Your task to perform on an android device: turn off location history Image 0: 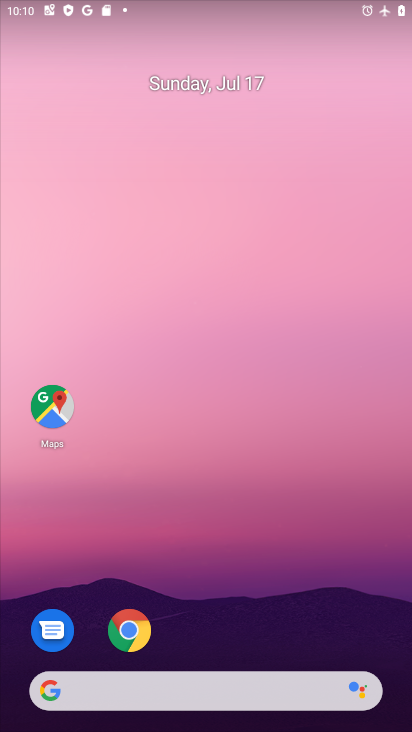
Step 0: press home button
Your task to perform on an android device: turn off location history Image 1: 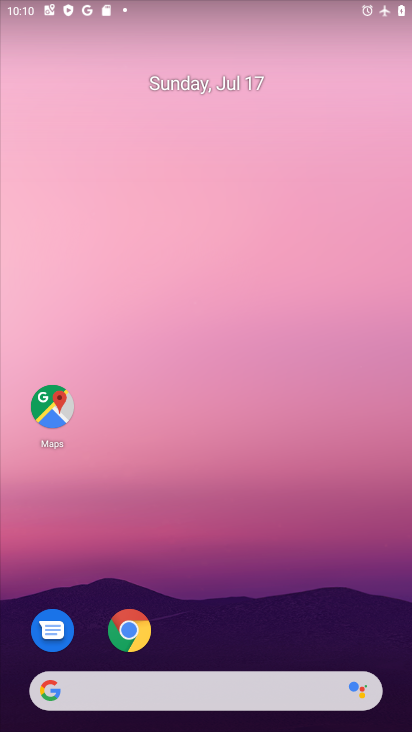
Step 1: drag from (221, 641) to (218, 54)
Your task to perform on an android device: turn off location history Image 2: 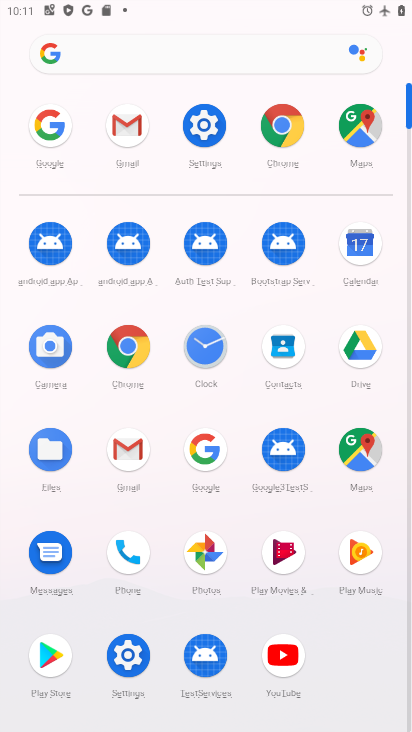
Step 2: click (201, 121)
Your task to perform on an android device: turn off location history Image 3: 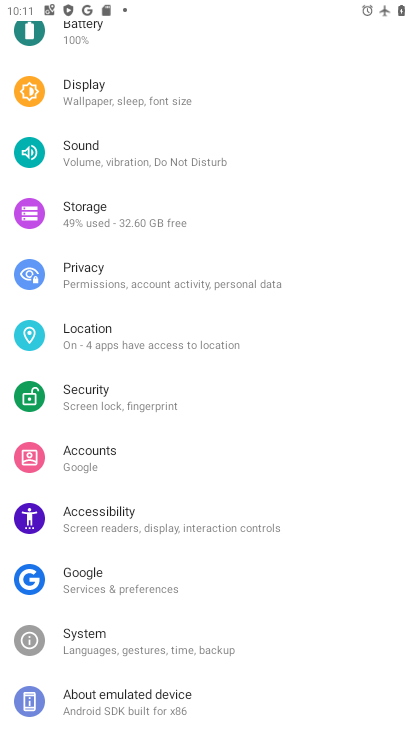
Step 3: click (118, 334)
Your task to perform on an android device: turn off location history Image 4: 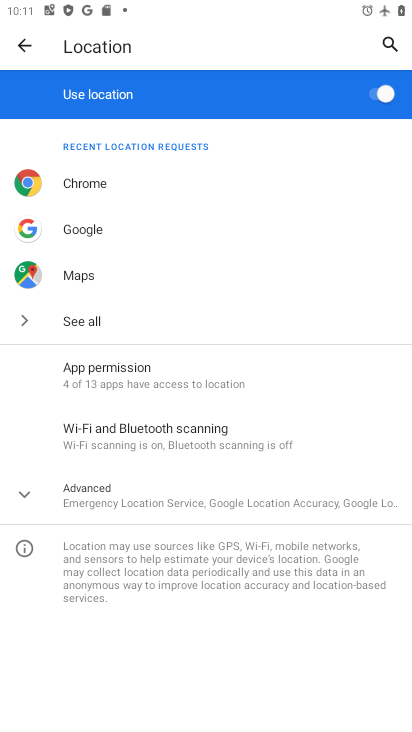
Step 4: click (22, 488)
Your task to perform on an android device: turn off location history Image 5: 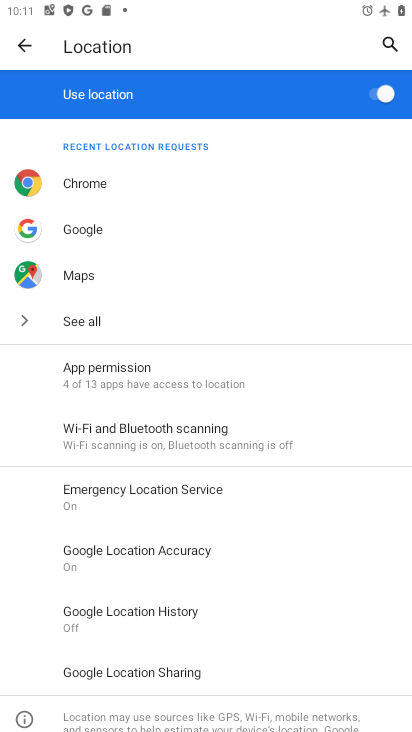
Step 5: click (95, 617)
Your task to perform on an android device: turn off location history Image 6: 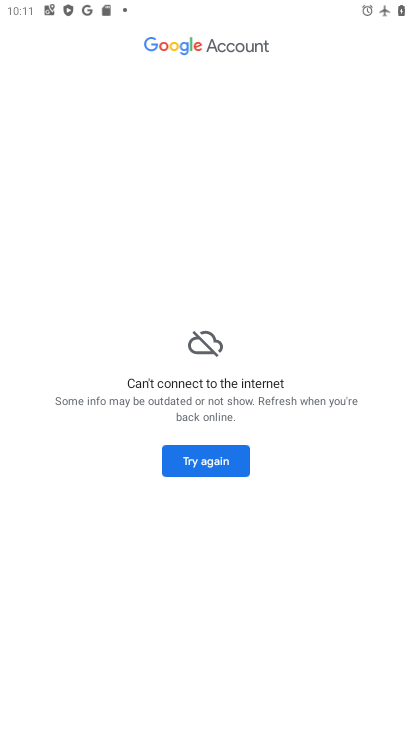
Step 6: drag from (248, 4) to (222, 502)
Your task to perform on an android device: turn off location history Image 7: 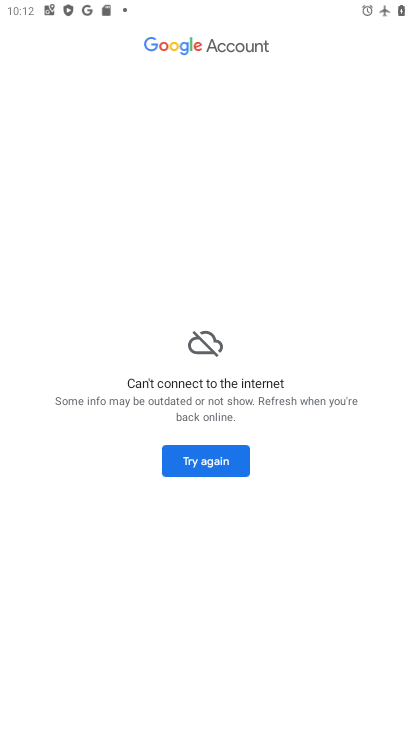
Step 7: drag from (304, 0) to (290, 478)
Your task to perform on an android device: turn off location history Image 8: 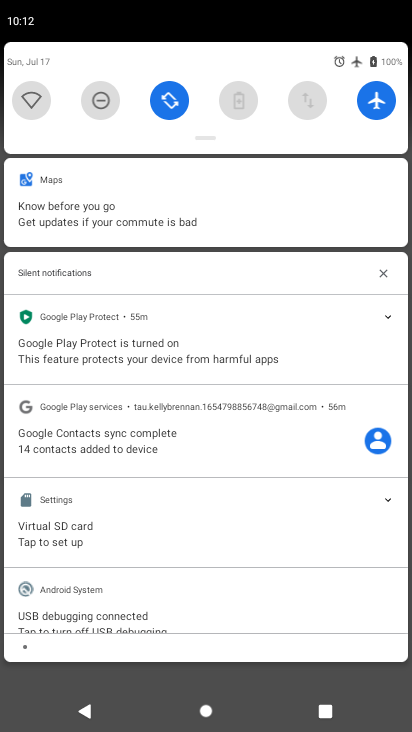
Step 8: click (373, 93)
Your task to perform on an android device: turn off location history Image 9: 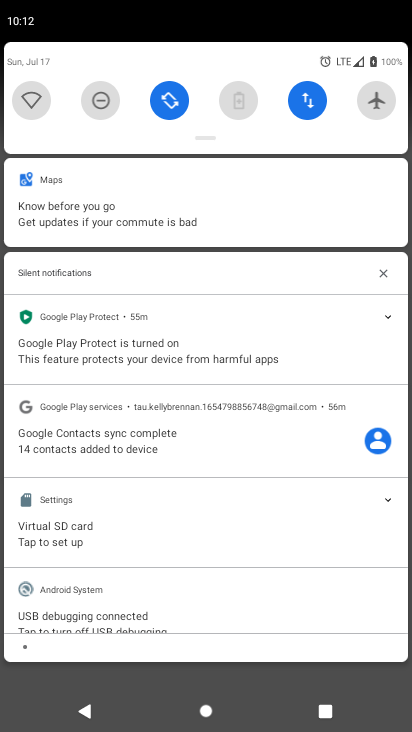
Step 9: task complete